Your task to perform on an android device: Go to sound settings Image 0: 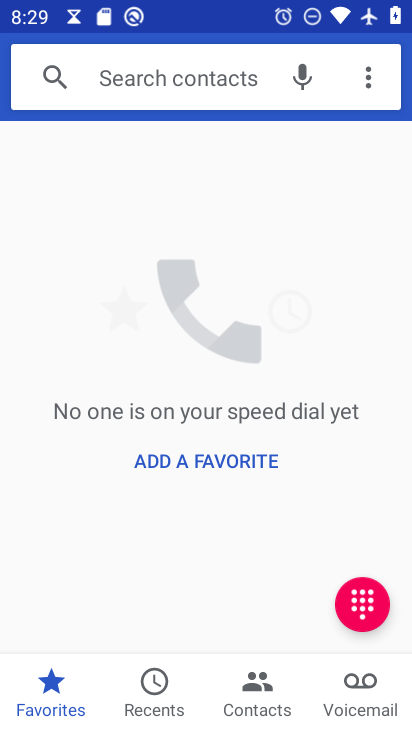
Step 0: press home button
Your task to perform on an android device: Go to sound settings Image 1: 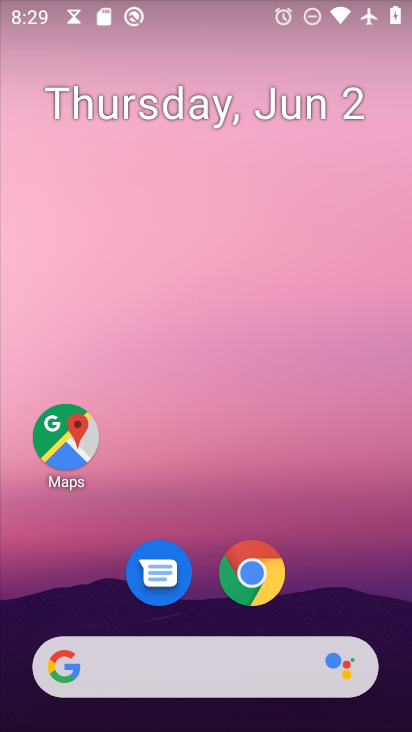
Step 1: drag from (222, 576) to (305, 41)
Your task to perform on an android device: Go to sound settings Image 2: 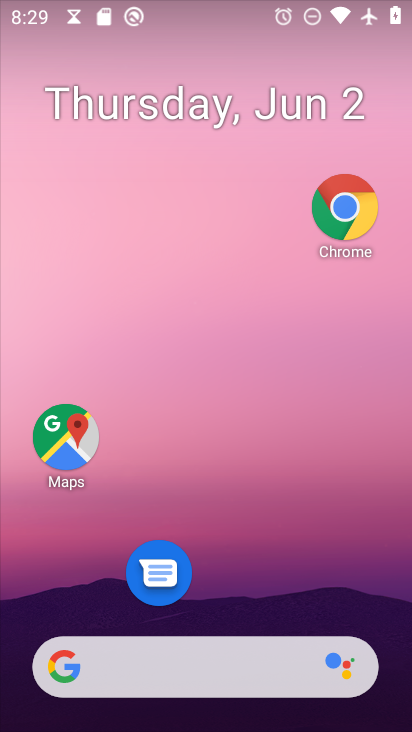
Step 2: drag from (181, 673) to (357, 76)
Your task to perform on an android device: Go to sound settings Image 3: 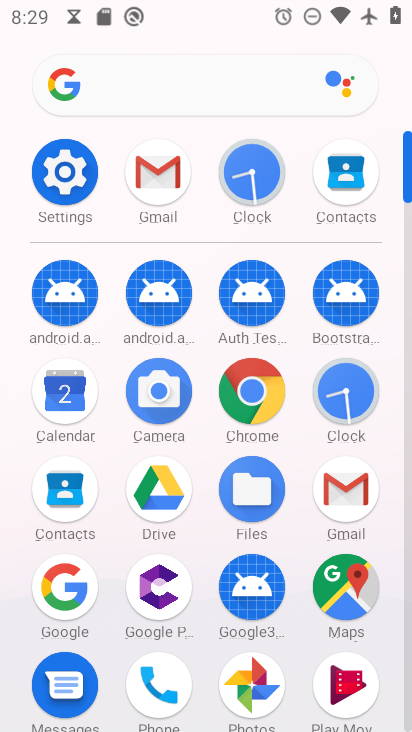
Step 3: click (71, 181)
Your task to perform on an android device: Go to sound settings Image 4: 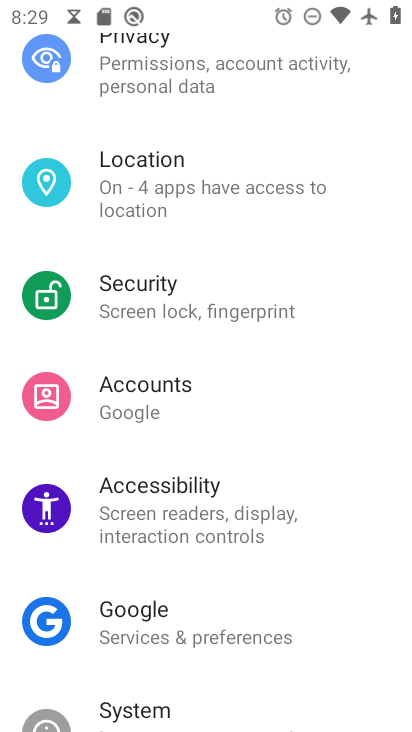
Step 4: drag from (337, 126) to (204, 583)
Your task to perform on an android device: Go to sound settings Image 5: 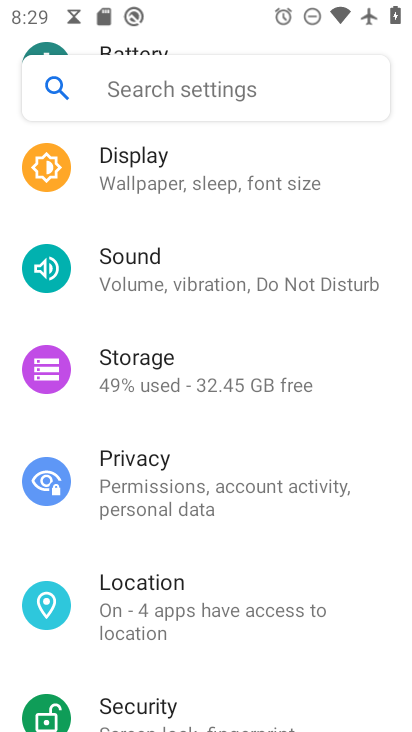
Step 5: click (193, 272)
Your task to perform on an android device: Go to sound settings Image 6: 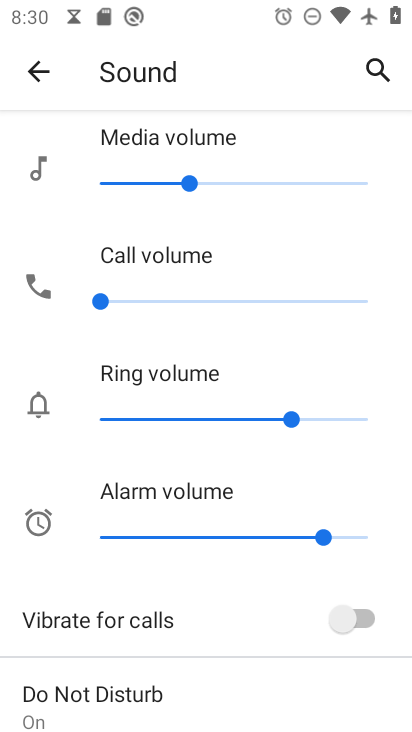
Step 6: task complete